Your task to perform on an android device: turn off wifi Image 0: 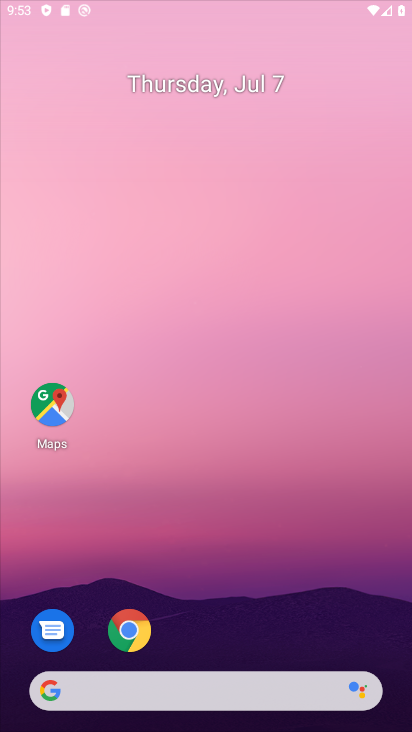
Step 0: press home button
Your task to perform on an android device: turn off wifi Image 1: 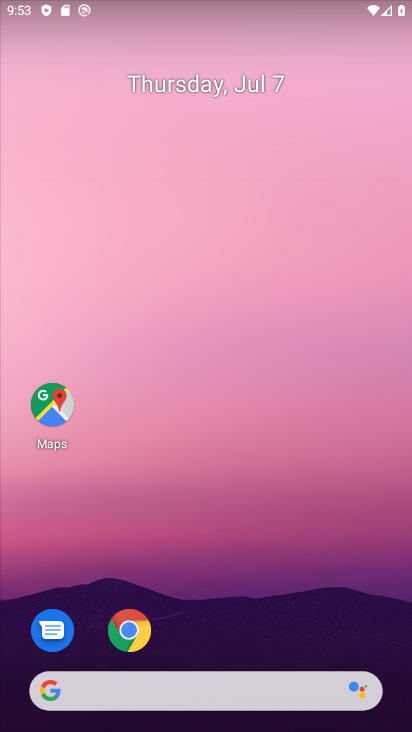
Step 1: drag from (222, 657) to (191, 1)
Your task to perform on an android device: turn off wifi Image 2: 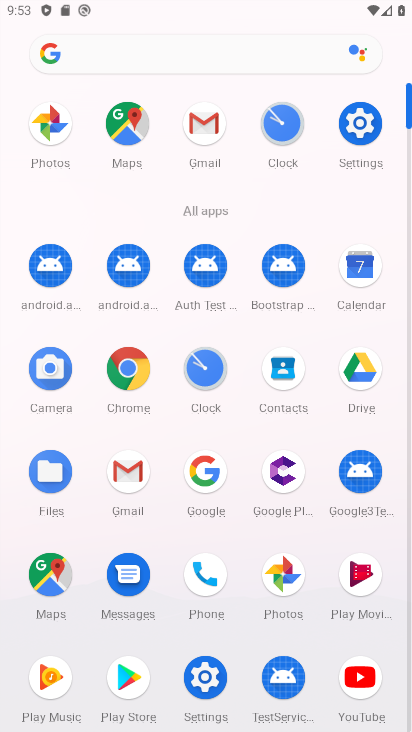
Step 2: drag from (199, 2) to (192, 375)
Your task to perform on an android device: turn off wifi Image 3: 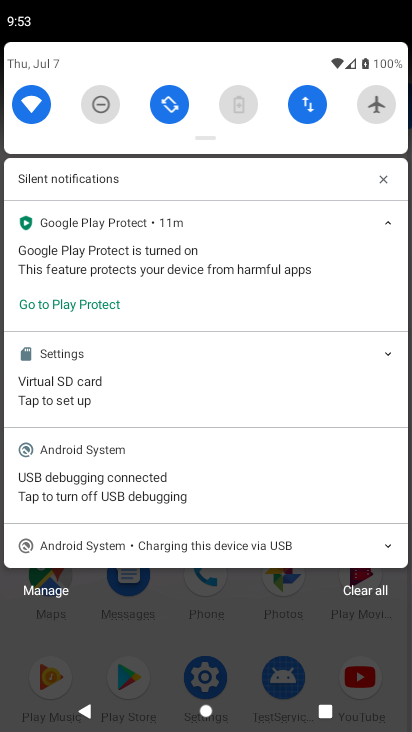
Step 3: click (31, 107)
Your task to perform on an android device: turn off wifi Image 4: 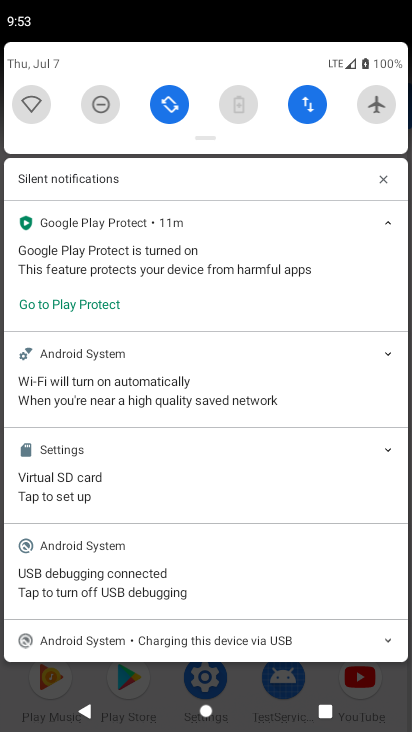
Step 4: task complete